Your task to perform on an android device: Open the phone app and click the voicemail tab. Image 0: 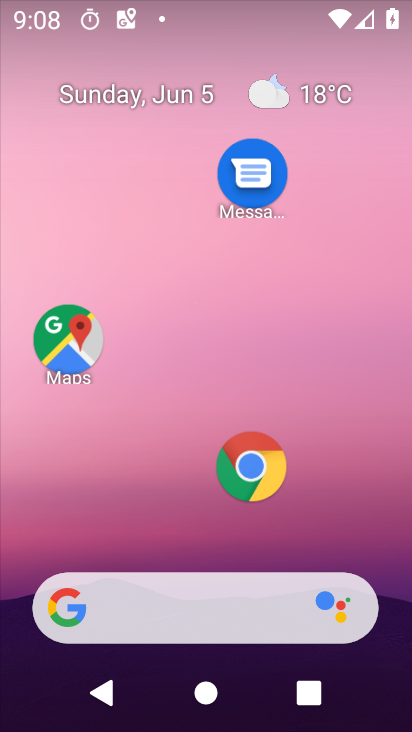
Step 0: drag from (177, 560) to (150, 7)
Your task to perform on an android device: Open the phone app and click the voicemail tab. Image 1: 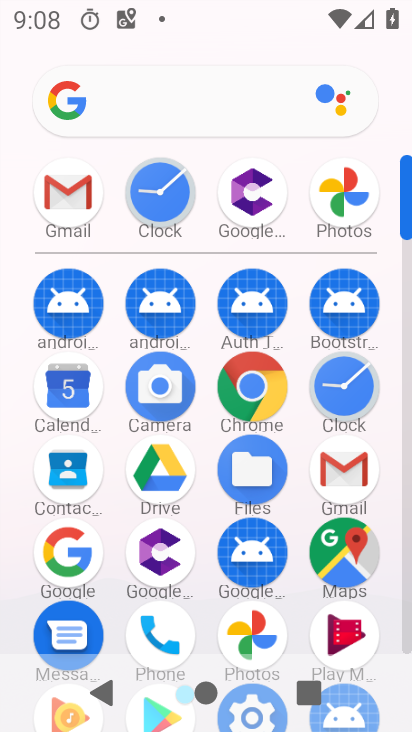
Step 1: click (156, 619)
Your task to perform on an android device: Open the phone app and click the voicemail tab. Image 2: 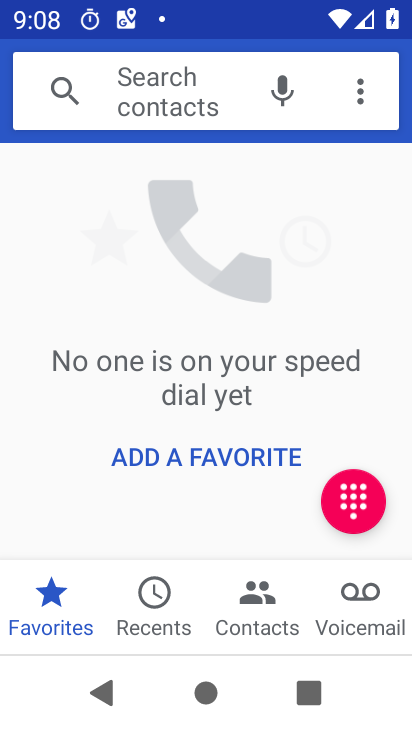
Step 2: click (356, 614)
Your task to perform on an android device: Open the phone app and click the voicemail tab. Image 3: 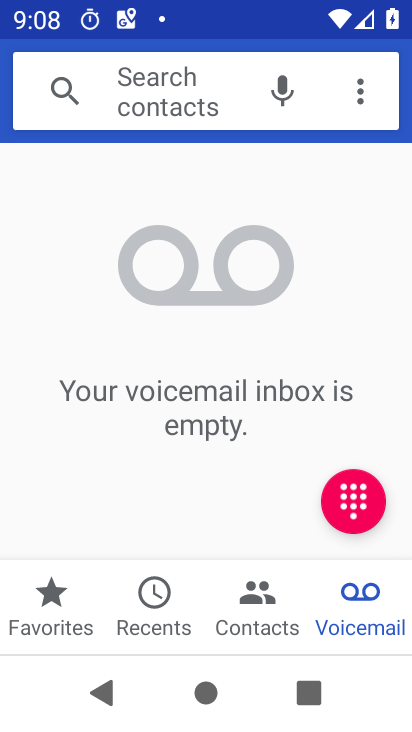
Step 3: task complete